Your task to perform on an android device: Show the shopping cart on costco.com. Add logitech g pro to the cart on costco.com Image 0: 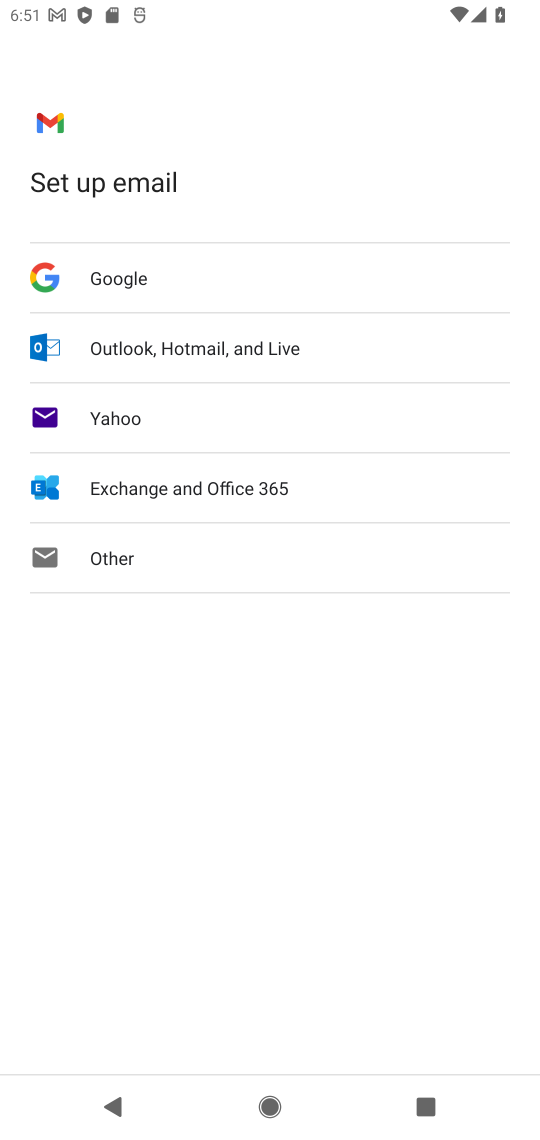
Step 0: press home button
Your task to perform on an android device: Show the shopping cart on costco.com. Add logitech g pro to the cart on costco.com Image 1: 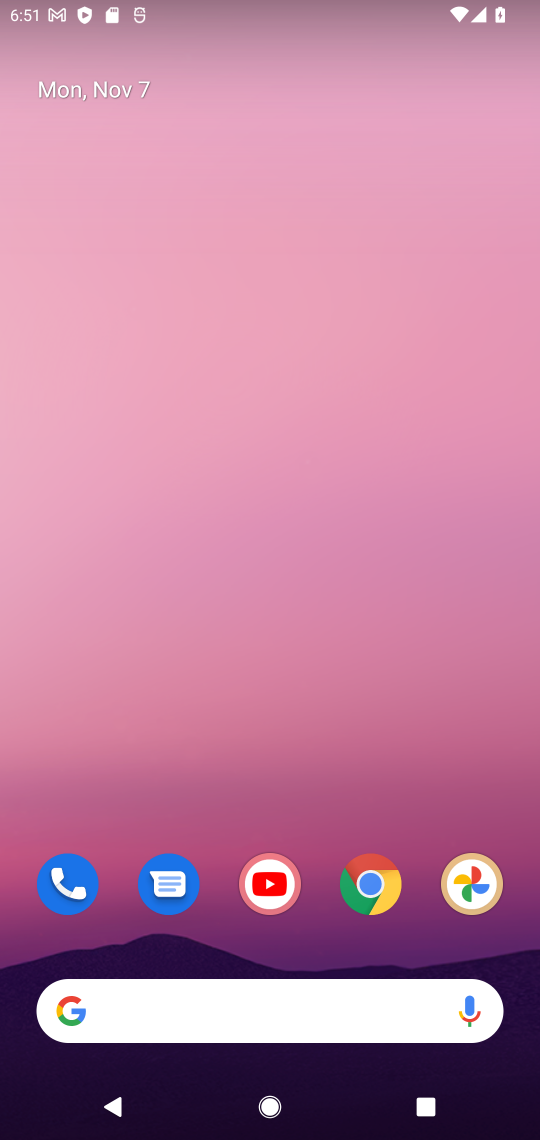
Step 1: click (378, 881)
Your task to perform on an android device: Show the shopping cart on costco.com. Add logitech g pro to the cart on costco.com Image 2: 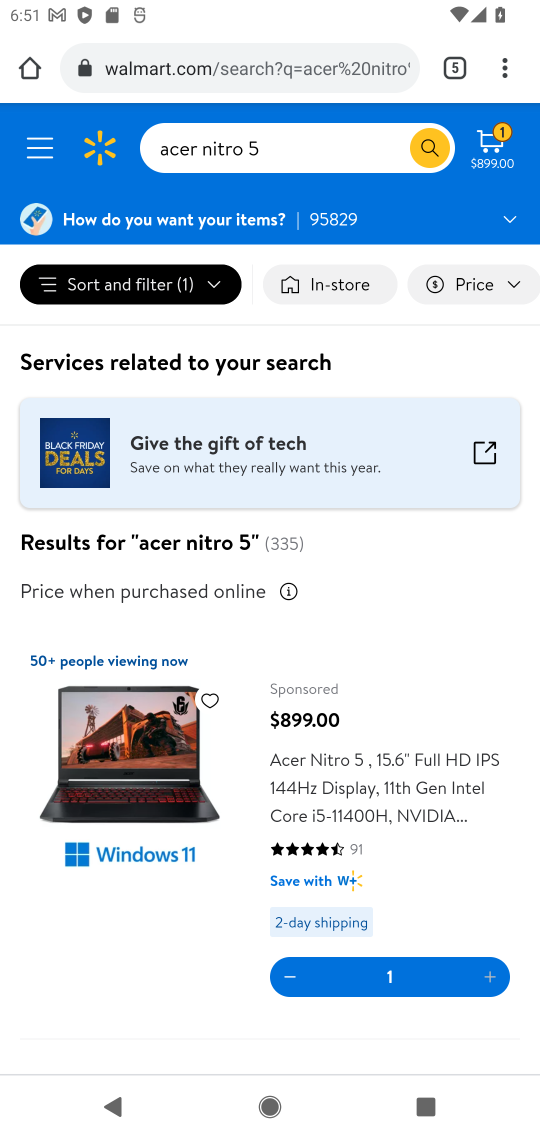
Step 2: click (285, 140)
Your task to perform on an android device: Show the shopping cart on costco.com. Add logitech g pro to the cart on costco.com Image 3: 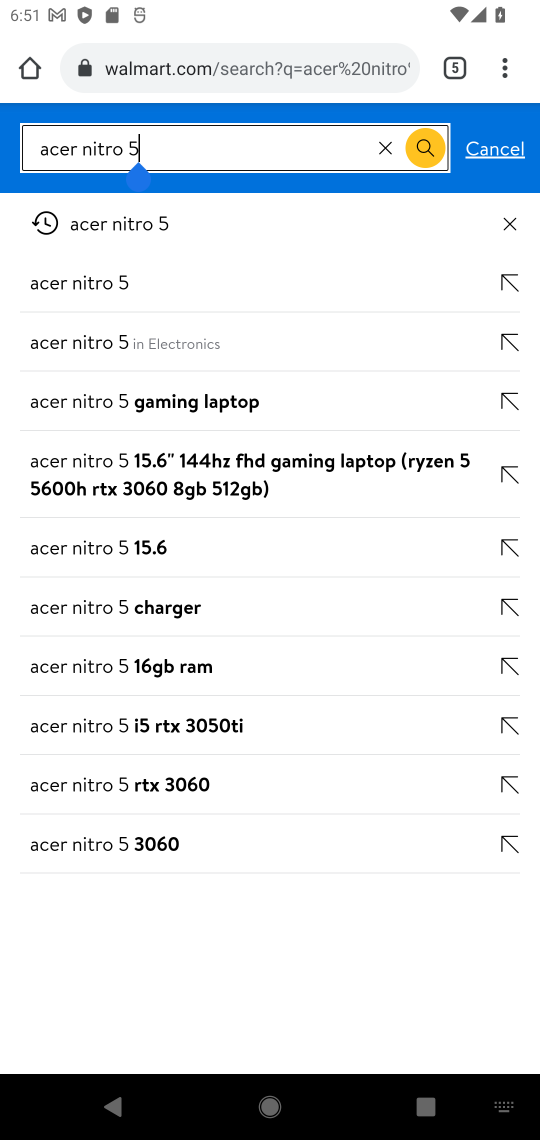
Step 3: click (387, 148)
Your task to perform on an android device: Show the shopping cart on costco.com. Add logitech g pro to the cart on costco.com Image 4: 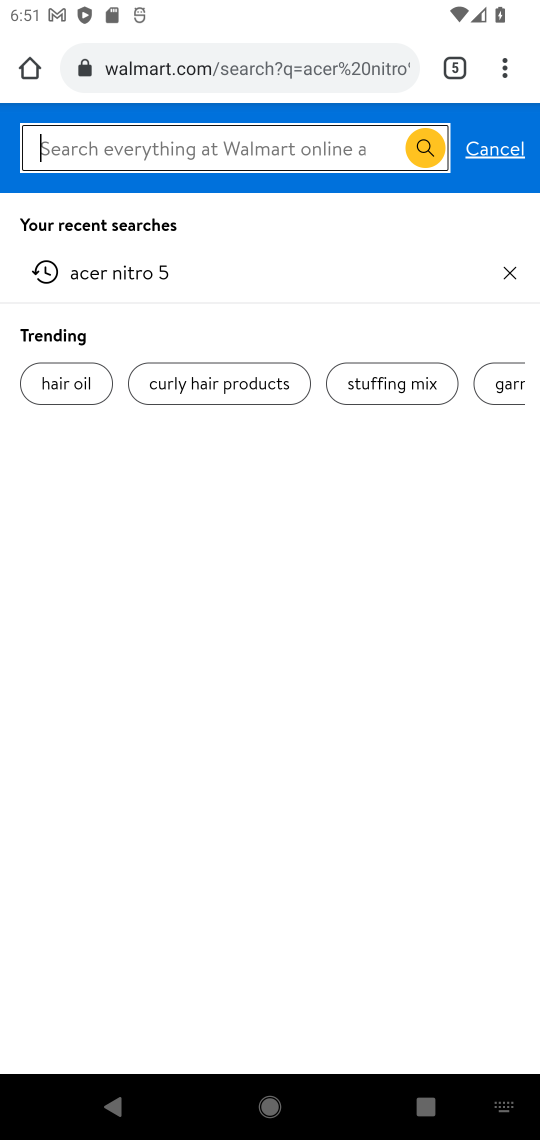
Step 4: click (456, 59)
Your task to perform on an android device: Show the shopping cart on costco.com. Add logitech g pro to the cart on costco.com Image 5: 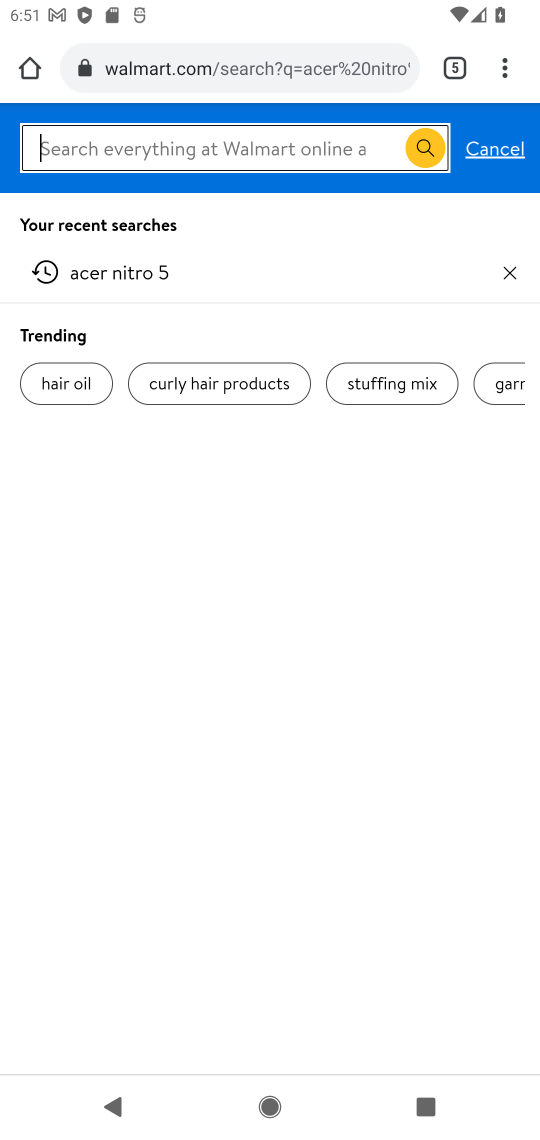
Step 5: click (456, 69)
Your task to perform on an android device: Show the shopping cart on costco.com. Add logitech g pro to the cart on costco.com Image 6: 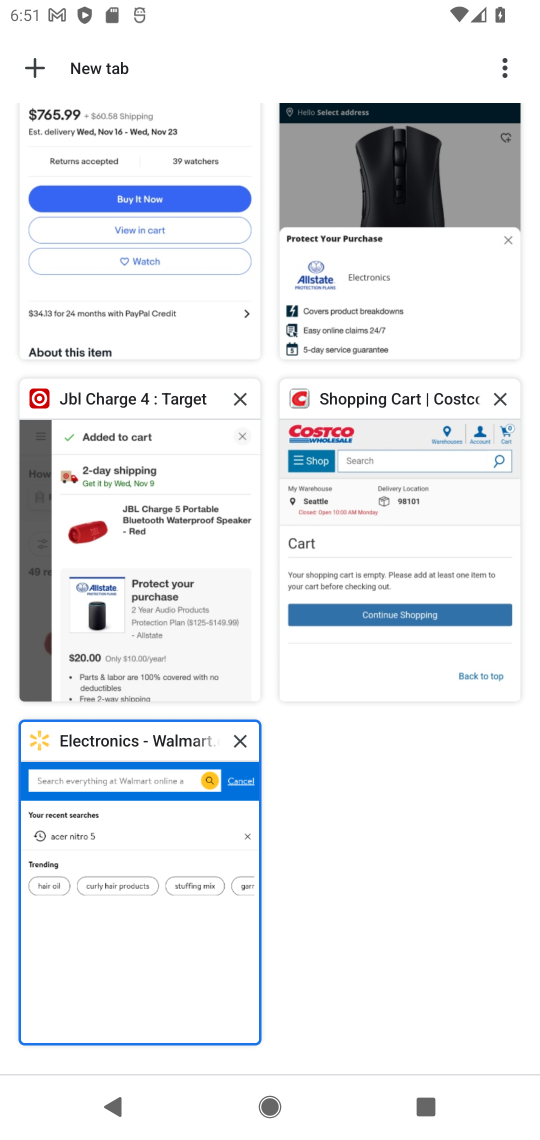
Step 6: click (353, 464)
Your task to perform on an android device: Show the shopping cart on costco.com. Add logitech g pro to the cart on costco.com Image 7: 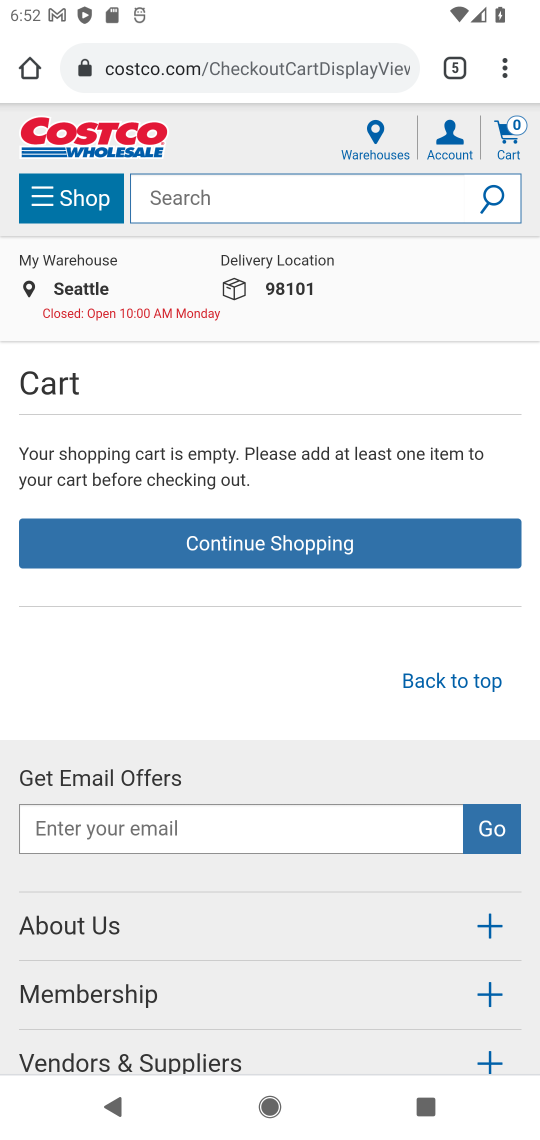
Step 7: click (186, 194)
Your task to perform on an android device: Show the shopping cart on costco.com. Add logitech g pro to the cart on costco.com Image 8: 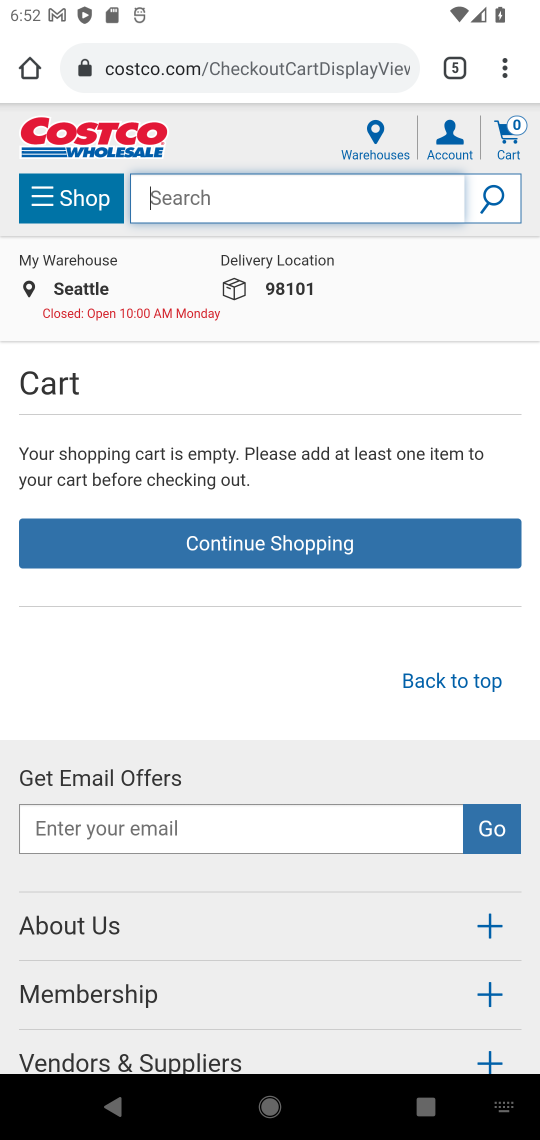
Step 8: type "logitech g pro"
Your task to perform on an android device: Show the shopping cart on costco.com. Add logitech g pro to the cart on costco.com Image 9: 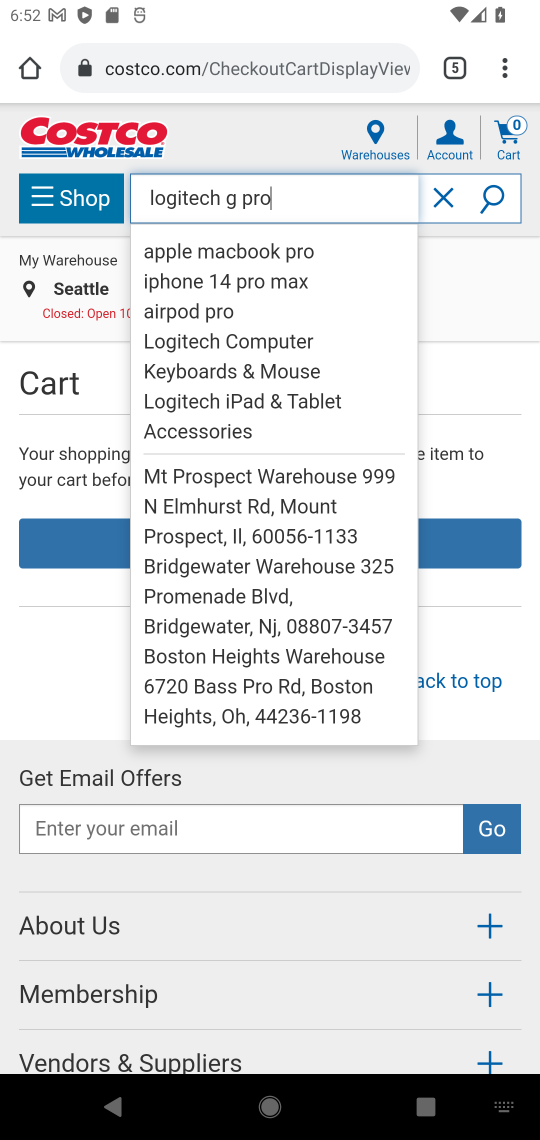
Step 9: click (233, 343)
Your task to perform on an android device: Show the shopping cart on costco.com. Add logitech g pro to the cart on costco.com Image 10: 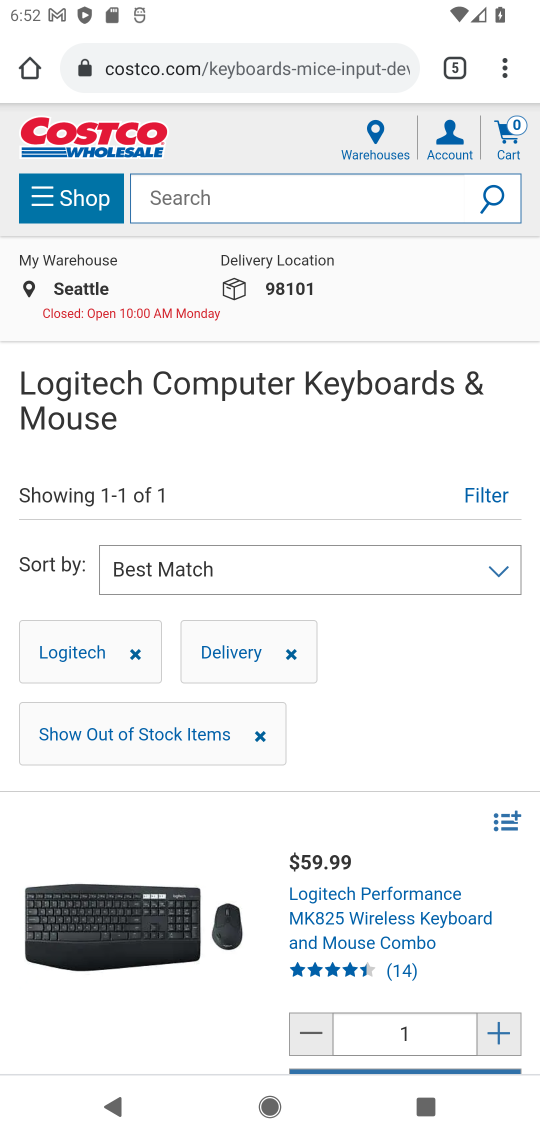
Step 10: drag from (394, 841) to (382, 468)
Your task to perform on an android device: Show the shopping cart on costco.com. Add logitech g pro to the cart on costco.com Image 11: 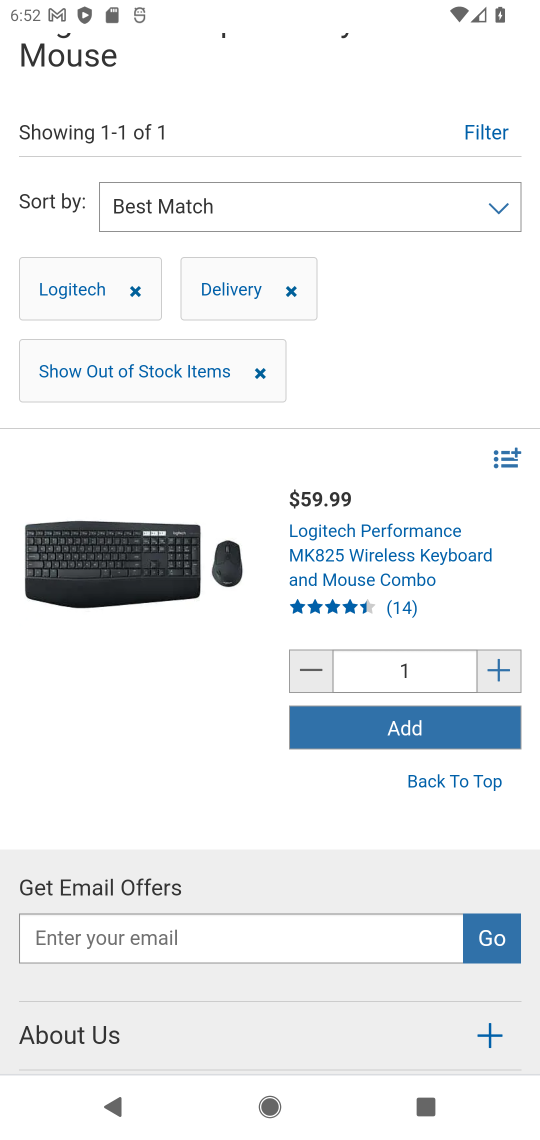
Step 11: click (431, 731)
Your task to perform on an android device: Show the shopping cart on costco.com. Add logitech g pro to the cart on costco.com Image 12: 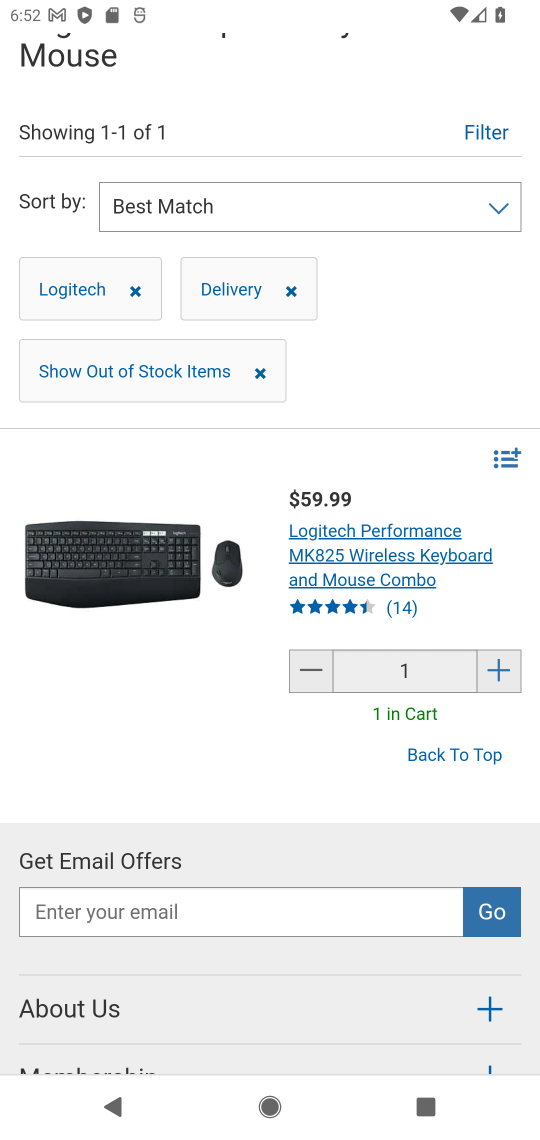
Step 12: task complete